Your task to perform on an android device: check battery use Image 0: 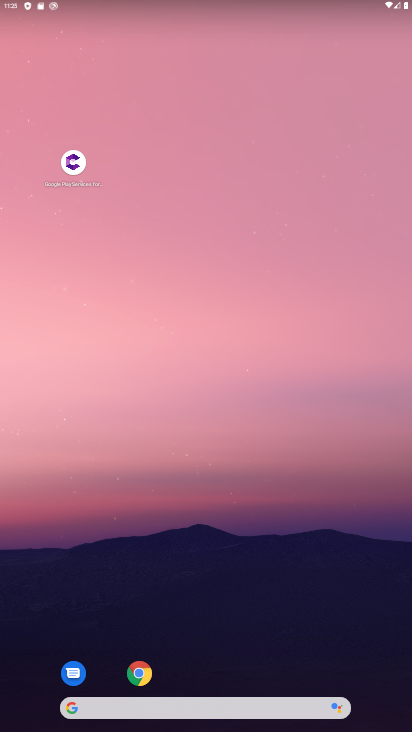
Step 0: drag from (42, 578) to (324, 2)
Your task to perform on an android device: check battery use Image 1: 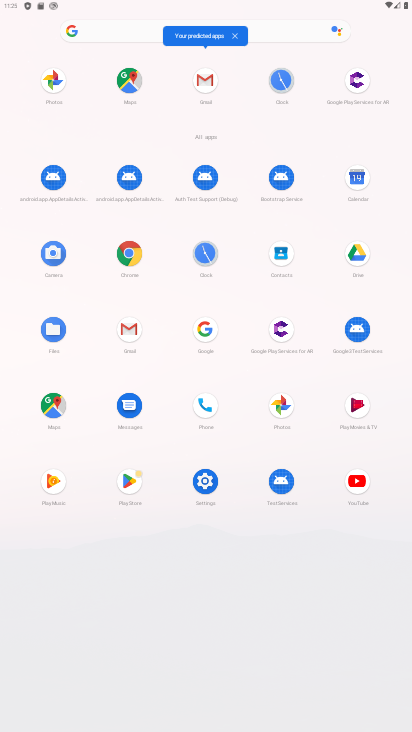
Step 1: click (200, 486)
Your task to perform on an android device: check battery use Image 2: 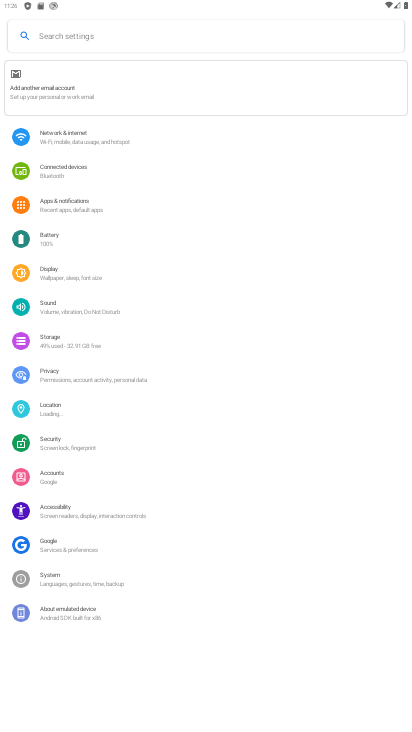
Step 2: drag from (226, 265) to (106, 281)
Your task to perform on an android device: check battery use Image 3: 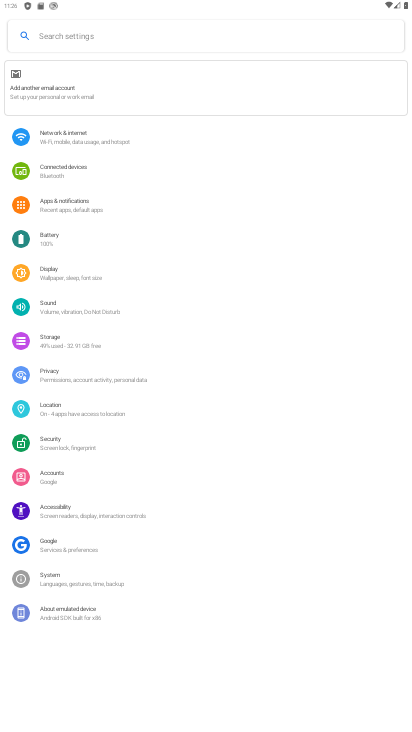
Step 3: click (84, 235)
Your task to perform on an android device: check battery use Image 4: 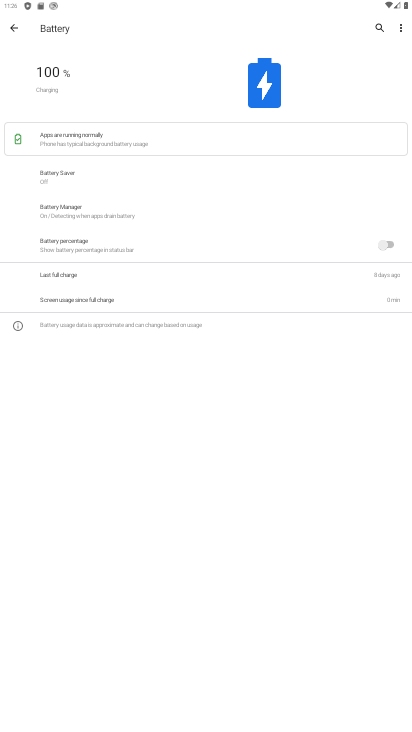
Step 4: task complete